Your task to perform on an android device: Open notification settings Image 0: 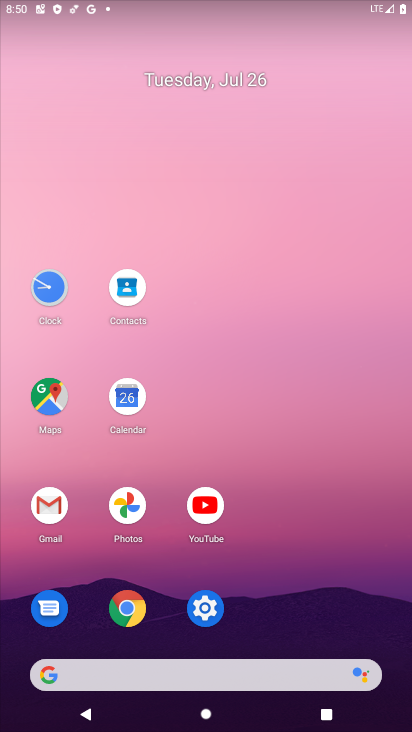
Step 0: click (203, 610)
Your task to perform on an android device: Open notification settings Image 1: 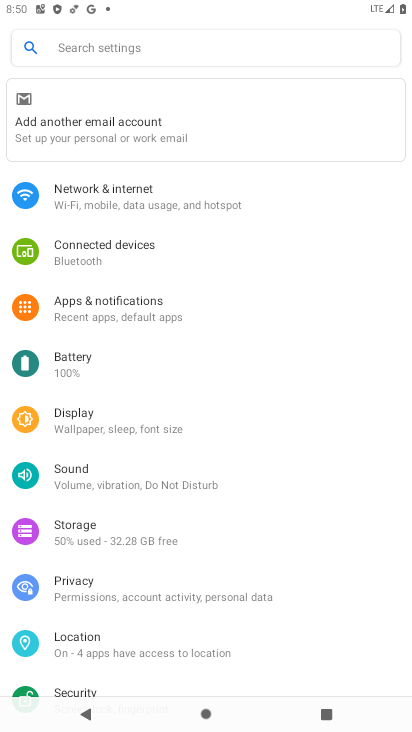
Step 1: click (103, 300)
Your task to perform on an android device: Open notification settings Image 2: 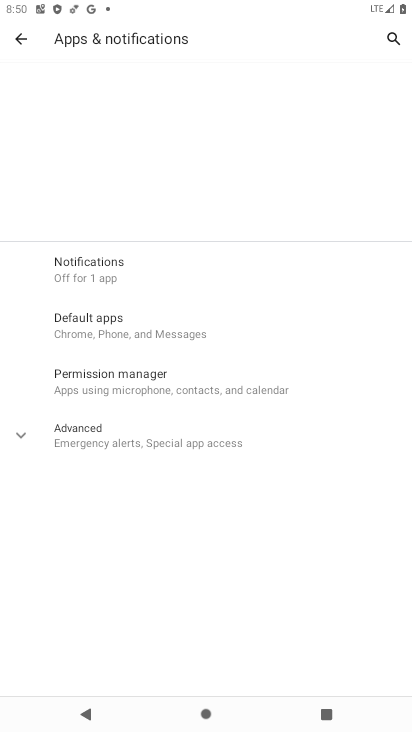
Step 2: task complete